Your task to perform on an android device: Go to calendar. Show me events next week Image 0: 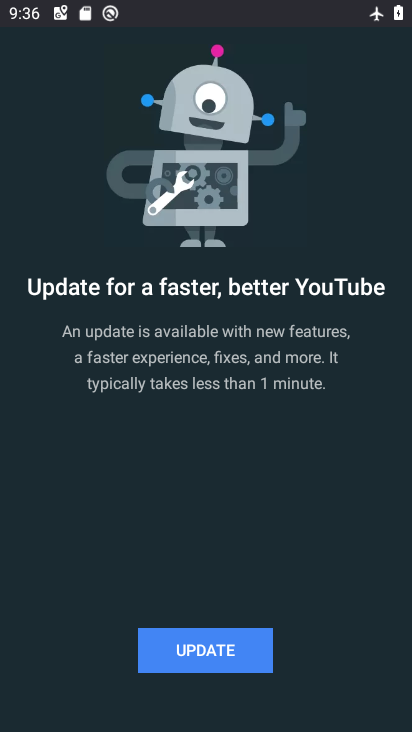
Step 0: press home button
Your task to perform on an android device: Go to calendar. Show me events next week Image 1: 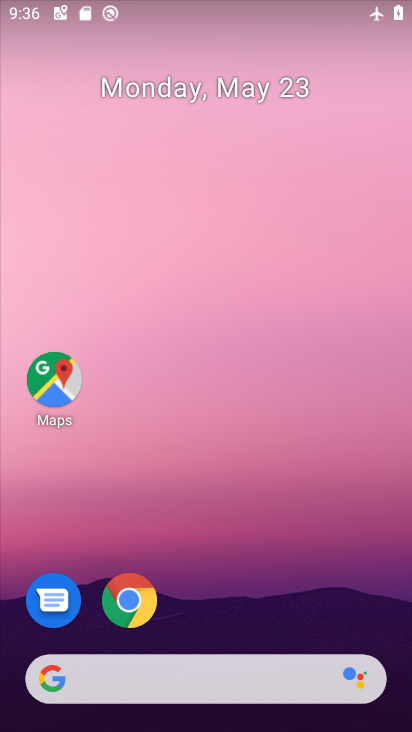
Step 1: drag from (215, 719) to (261, 42)
Your task to perform on an android device: Go to calendar. Show me events next week Image 2: 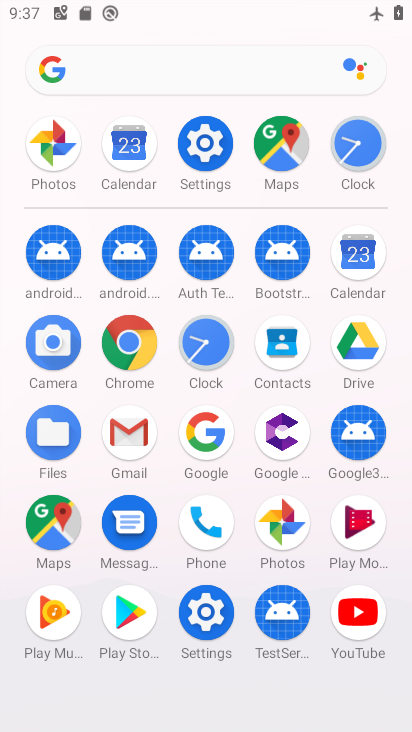
Step 2: click (365, 260)
Your task to perform on an android device: Go to calendar. Show me events next week Image 3: 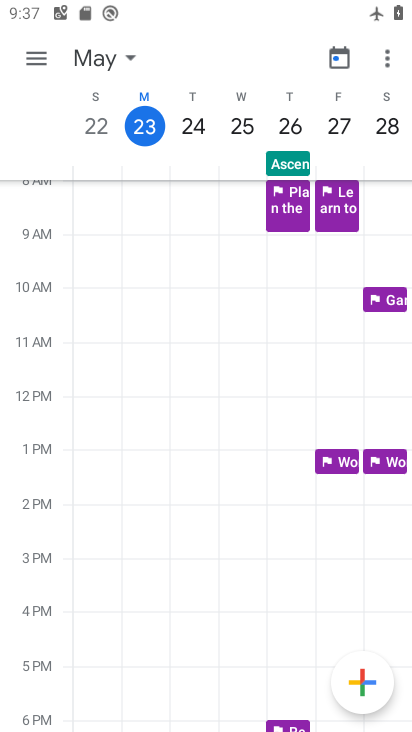
Step 3: click (128, 50)
Your task to perform on an android device: Go to calendar. Show me events next week Image 4: 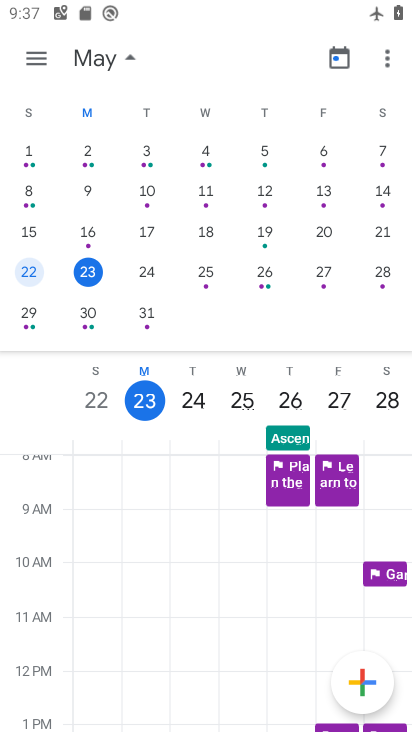
Step 4: click (91, 311)
Your task to perform on an android device: Go to calendar. Show me events next week Image 5: 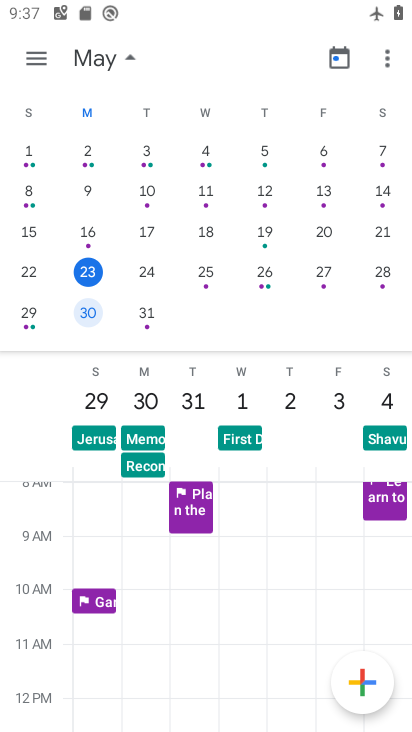
Step 5: click (35, 54)
Your task to perform on an android device: Go to calendar. Show me events next week Image 6: 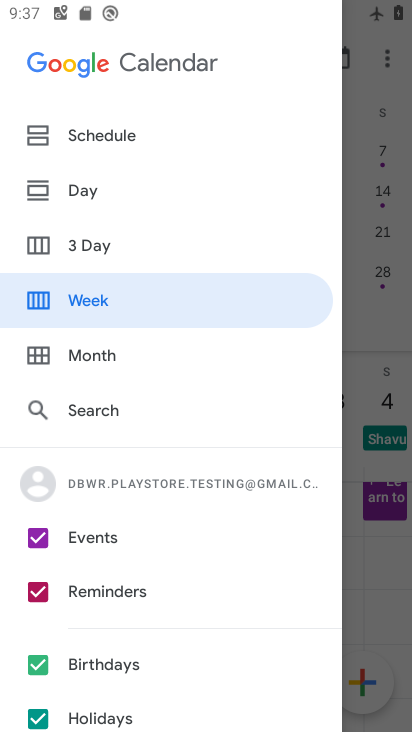
Step 6: click (96, 301)
Your task to perform on an android device: Go to calendar. Show me events next week Image 7: 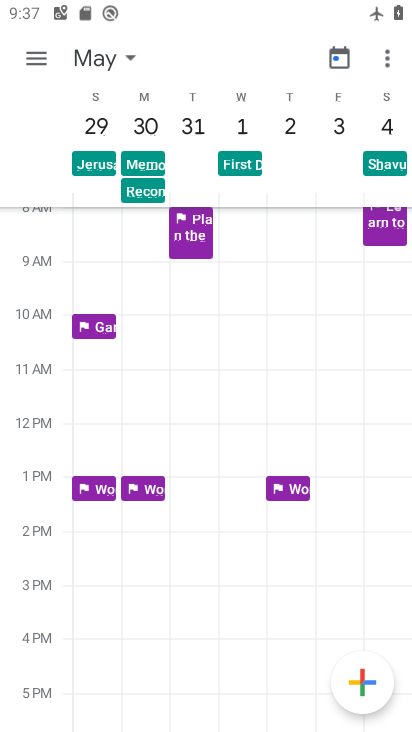
Step 7: task complete